Your task to perform on an android device: Find coffee shops on Maps Image 0: 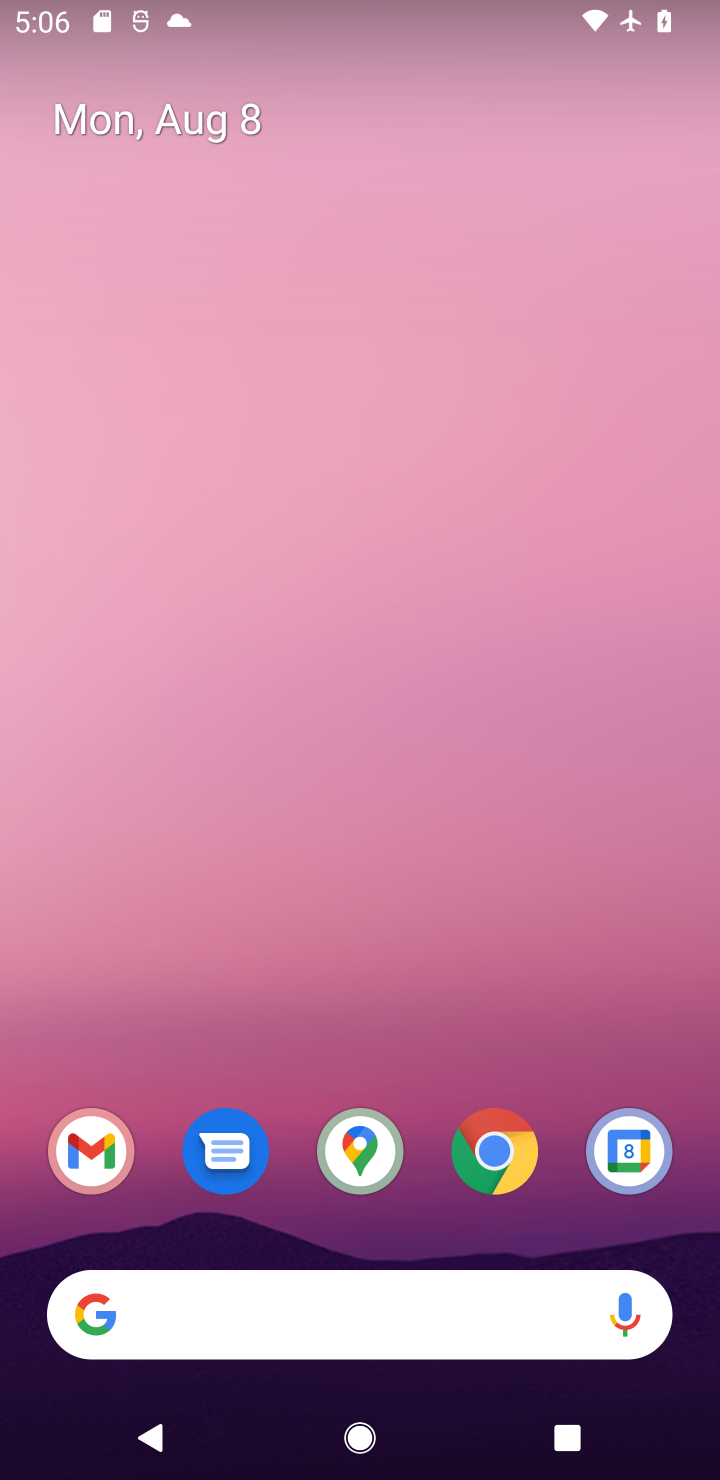
Step 0: click (374, 1127)
Your task to perform on an android device: Find coffee shops on Maps Image 1: 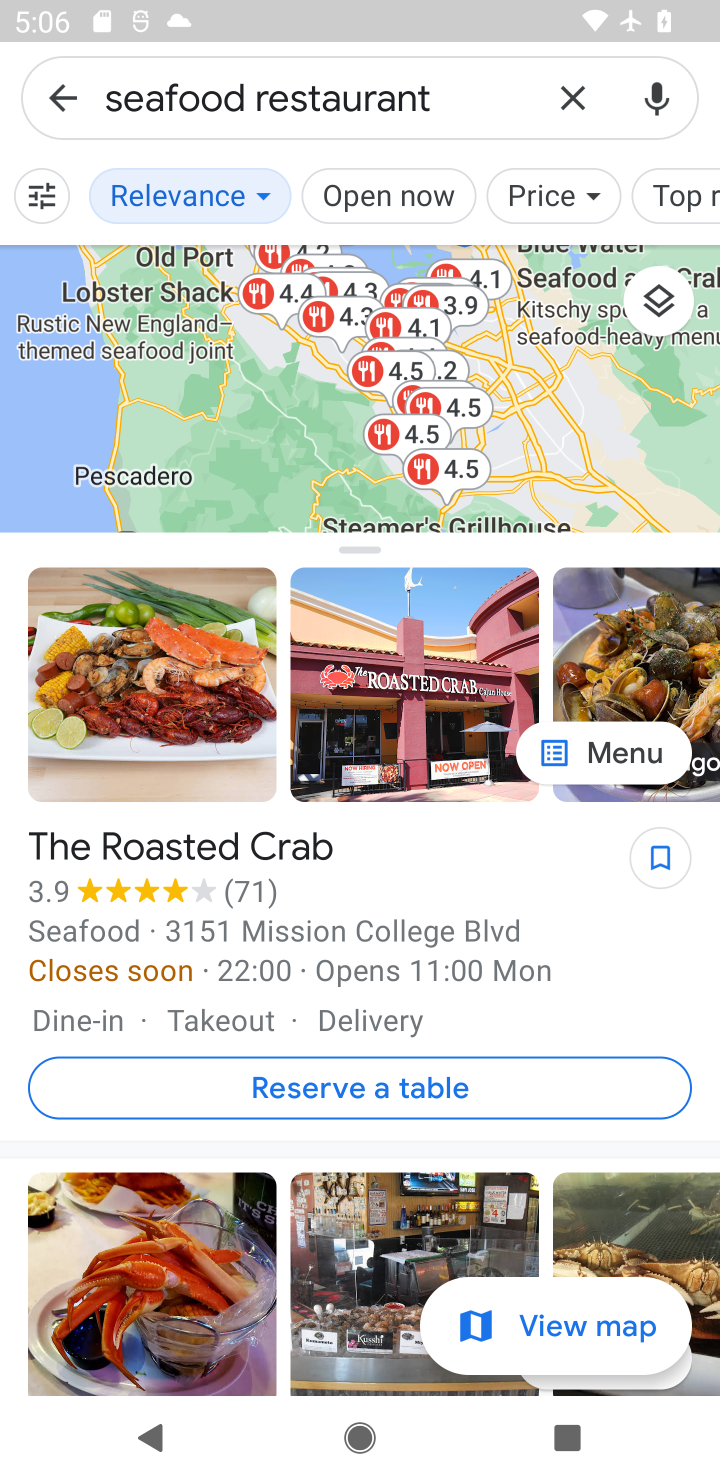
Step 1: click (560, 100)
Your task to perform on an android device: Find coffee shops on Maps Image 2: 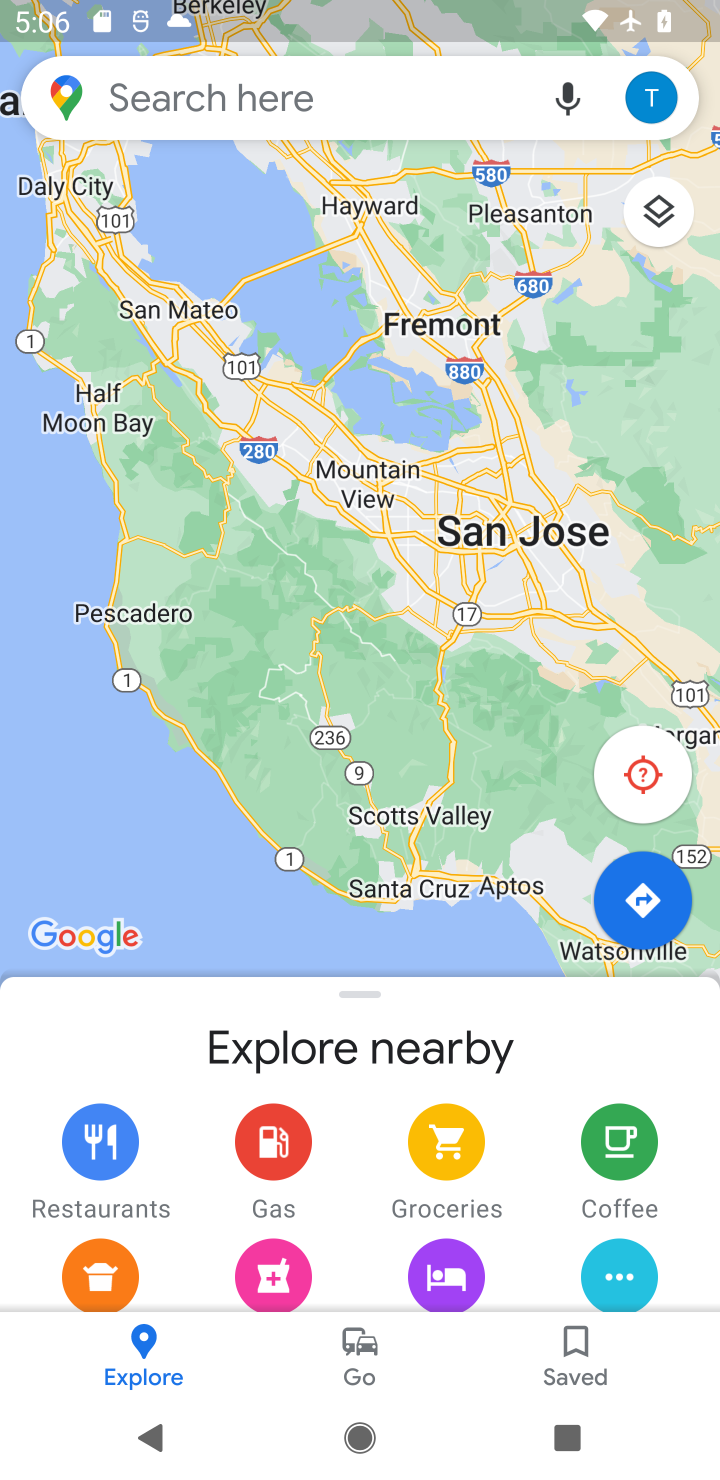
Step 2: click (214, 100)
Your task to perform on an android device: Find coffee shops on Maps Image 3: 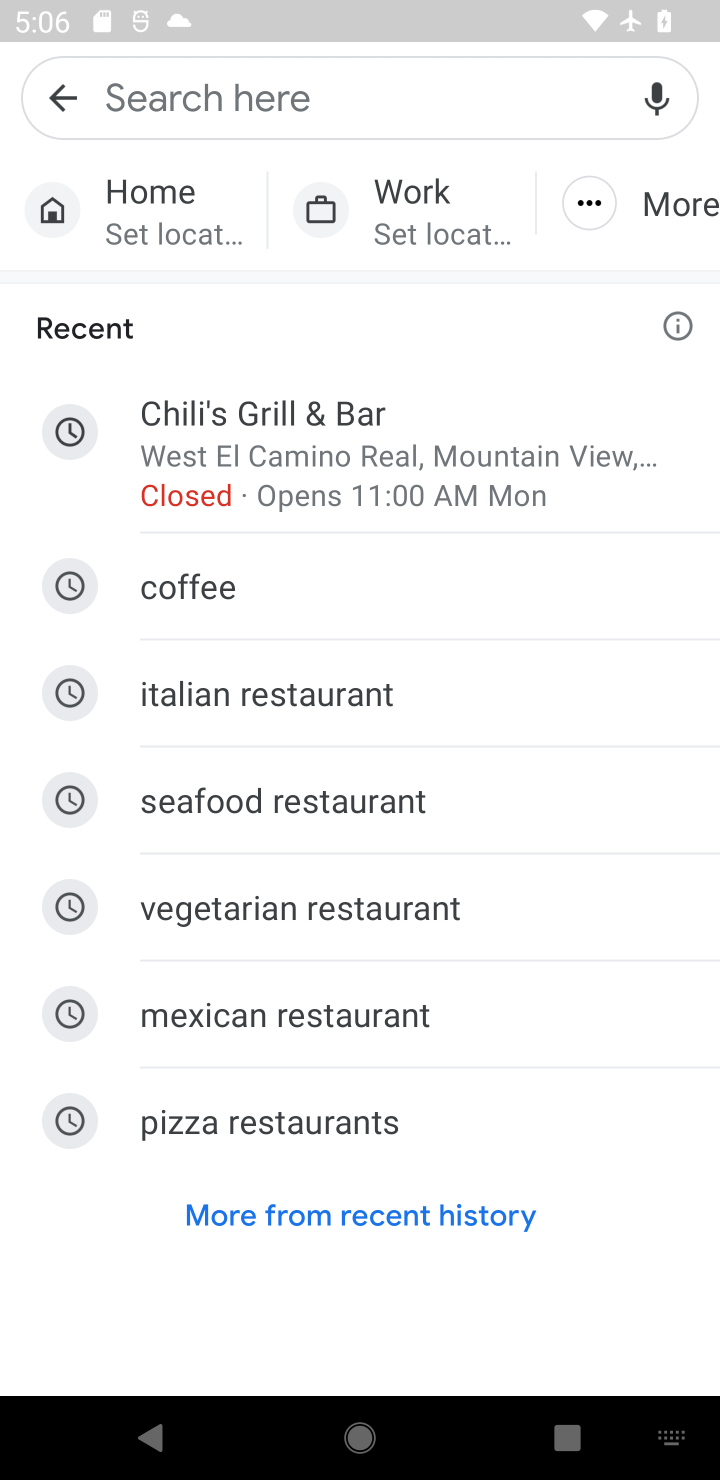
Step 3: type "coffee shops"
Your task to perform on an android device: Find coffee shops on Maps Image 4: 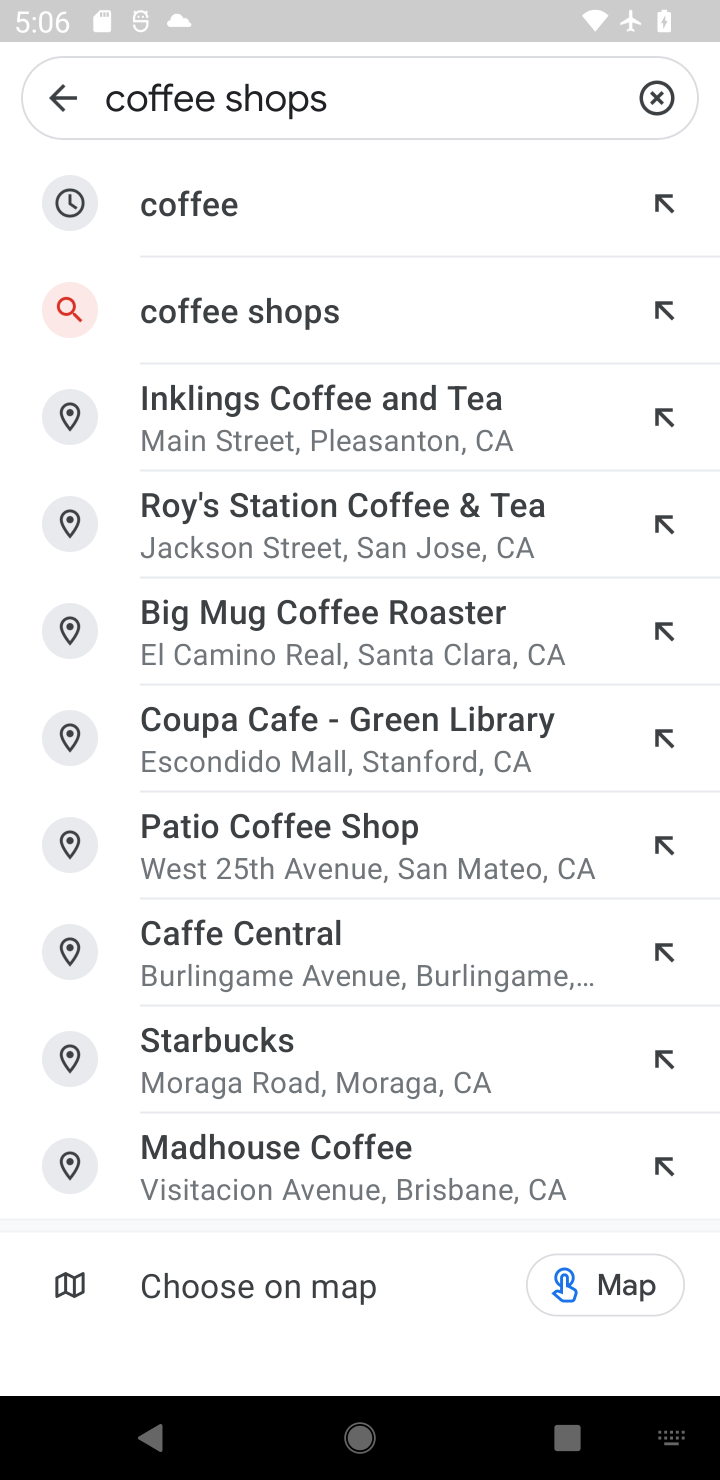
Step 4: click (412, 321)
Your task to perform on an android device: Find coffee shops on Maps Image 5: 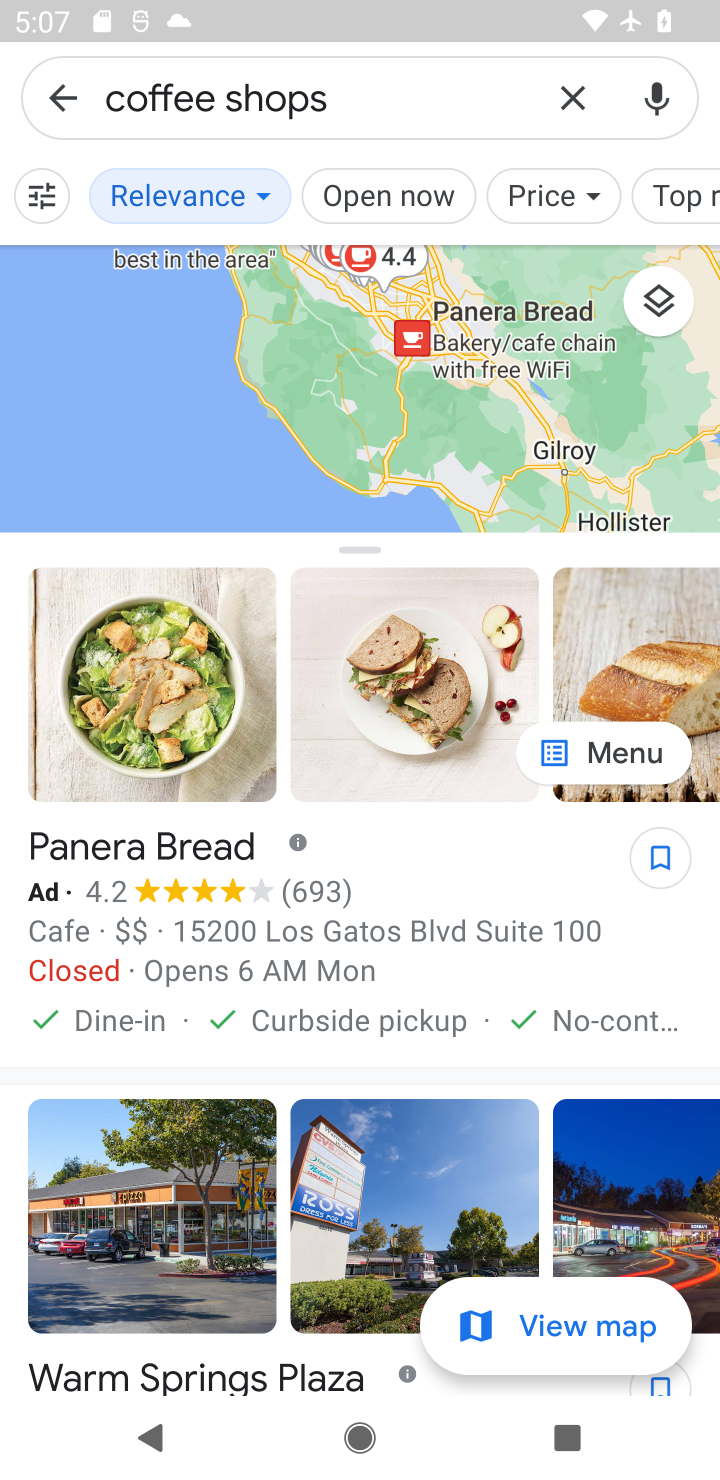
Step 5: task complete